Your task to perform on an android device: change the upload size in google photos Image 0: 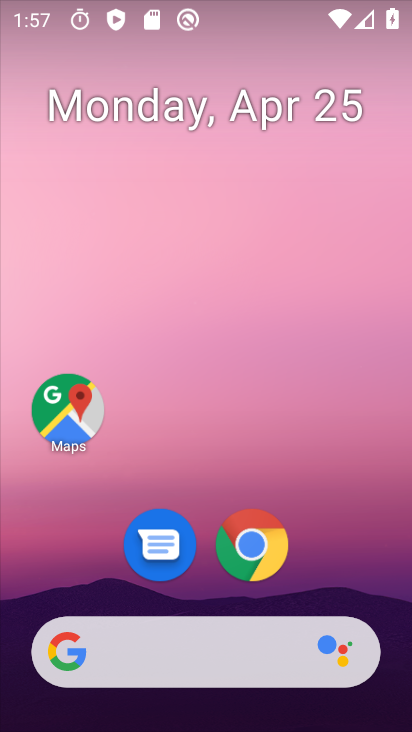
Step 0: drag from (313, 573) to (315, 57)
Your task to perform on an android device: change the upload size in google photos Image 1: 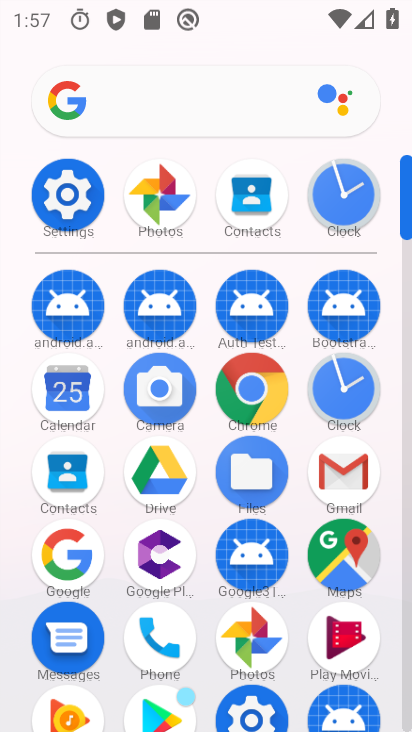
Step 1: click (248, 643)
Your task to perform on an android device: change the upload size in google photos Image 2: 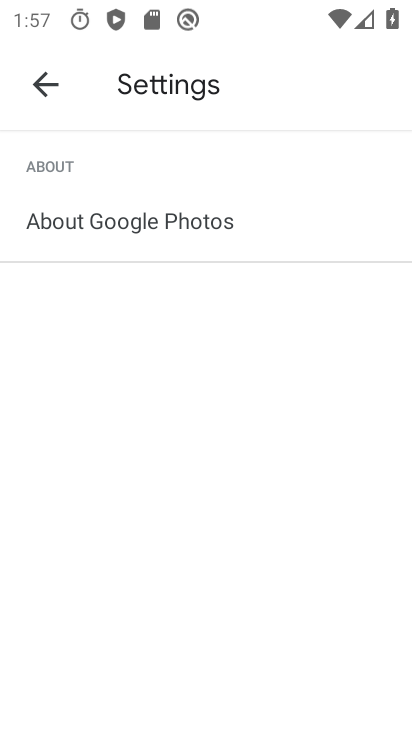
Step 2: click (50, 82)
Your task to perform on an android device: change the upload size in google photos Image 3: 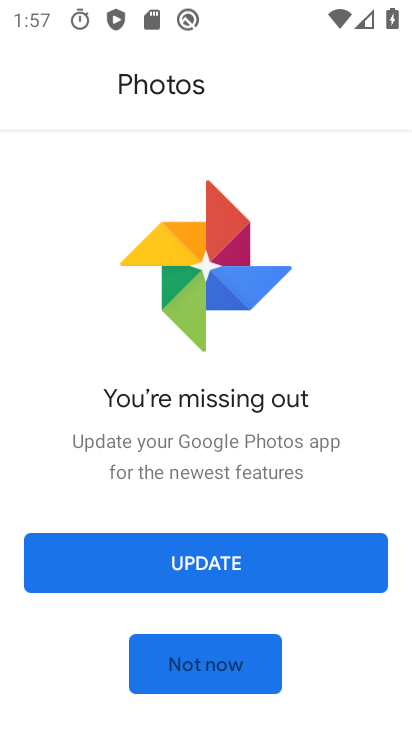
Step 3: click (260, 572)
Your task to perform on an android device: change the upload size in google photos Image 4: 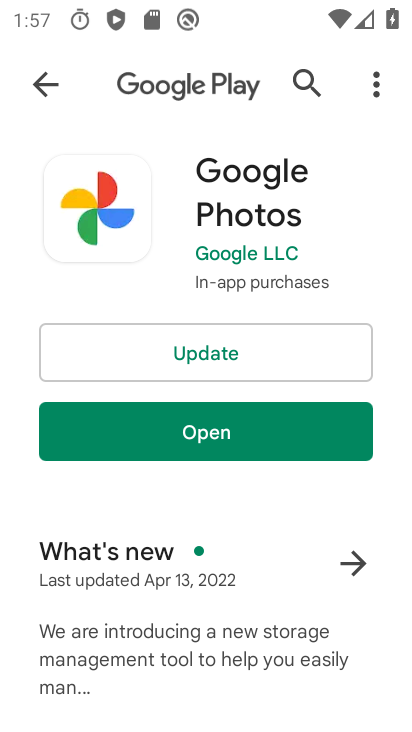
Step 4: click (259, 359)
Your task to perform on an android device: change the upload size in google photos Image 5: 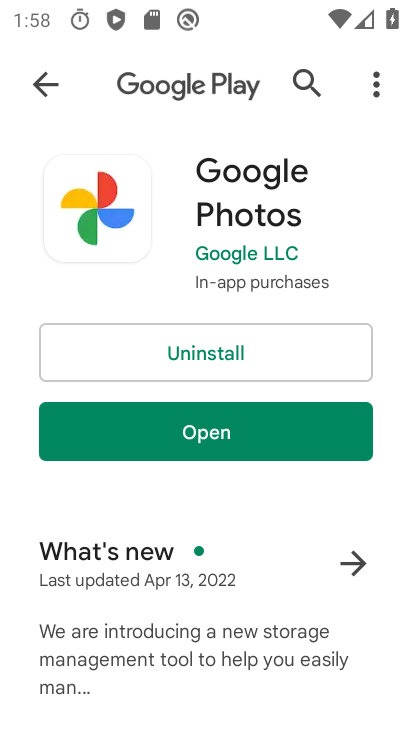
Step 5: click (251, 437)
Your task to perform on an android device: change the upload size in google photos Image 6: 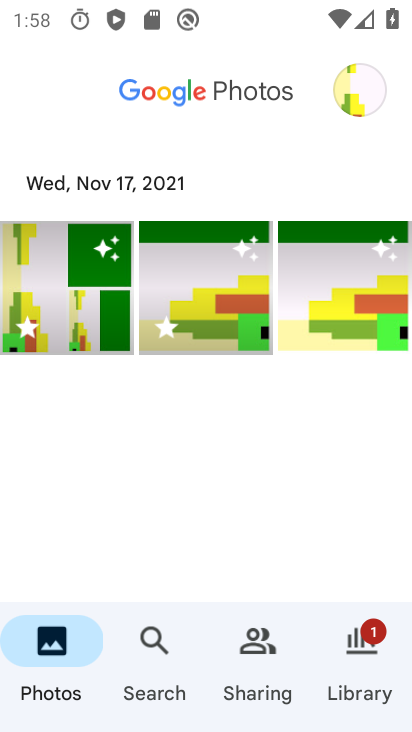
Step 6: task complete